Your task to perform on an android device: set default search engine in the chrome app Image 0: 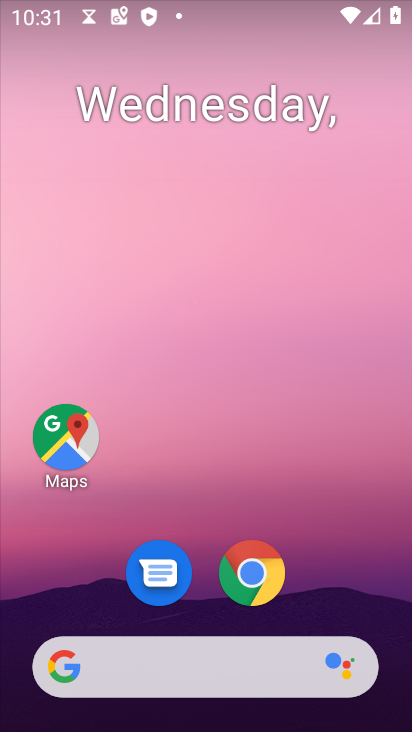
Step 0: click (248, 583)
Your task to perform on an android device: set default search engine in the chrome app Image 1: 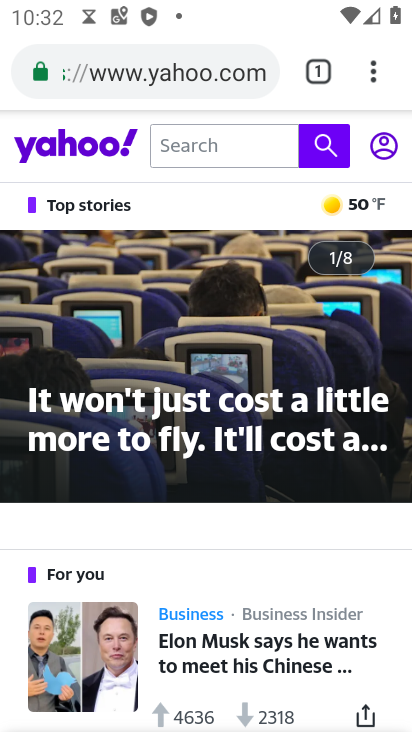
Step 1: click (369, 65)
Your task to perform on an android device: set default search engine in the chrome app Image 2: 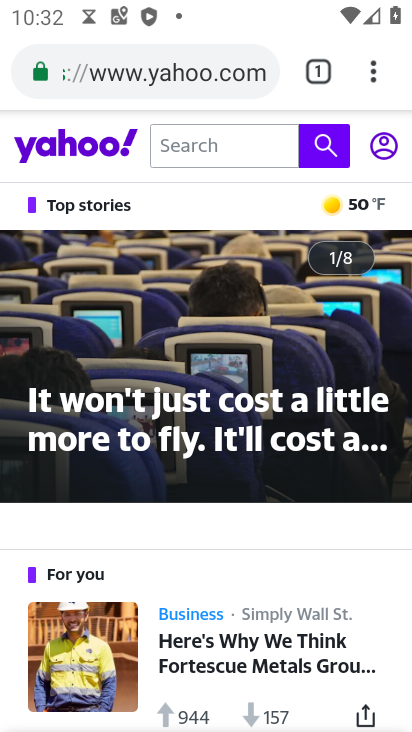
Step 2: click (372, 68)
Your task to perform on an android device: set default search engine in the chrome app Image 3: 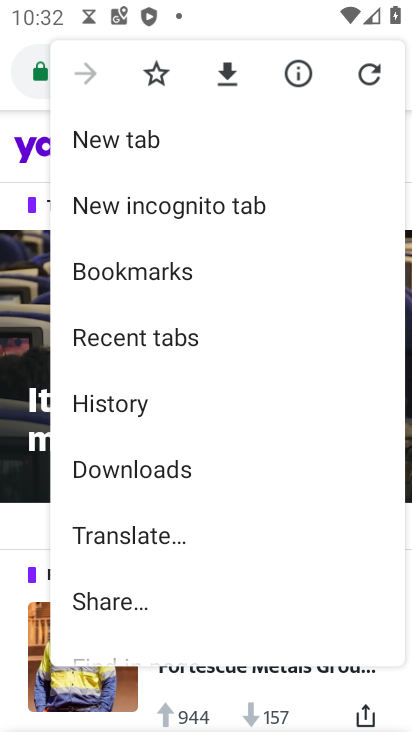
Step 3: drag from (136, 619) to (190, 205)
Your task to perform on an android device: set default search engine in the chrome app Image 4: 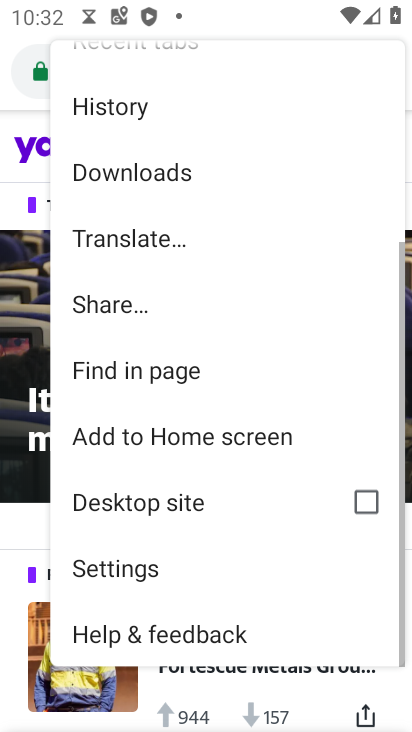
Step 4: click (110, 567)
Your task to perform on an android device: set default search engine in the chrome app Image 5: 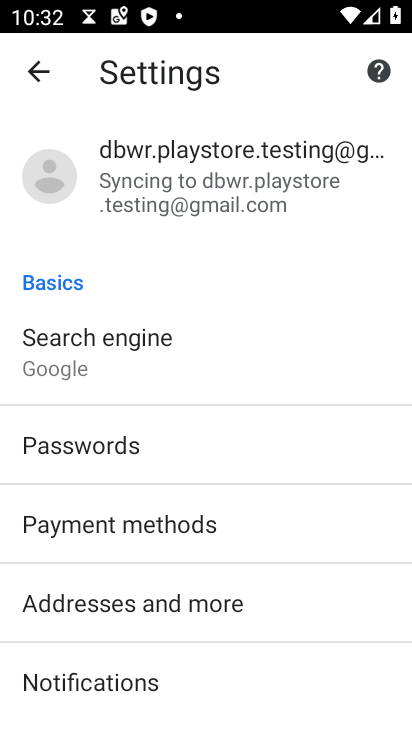
Step 5: click (94, 345)
Your task to perform on an android device: set default search engine in the chrome app Image 6: 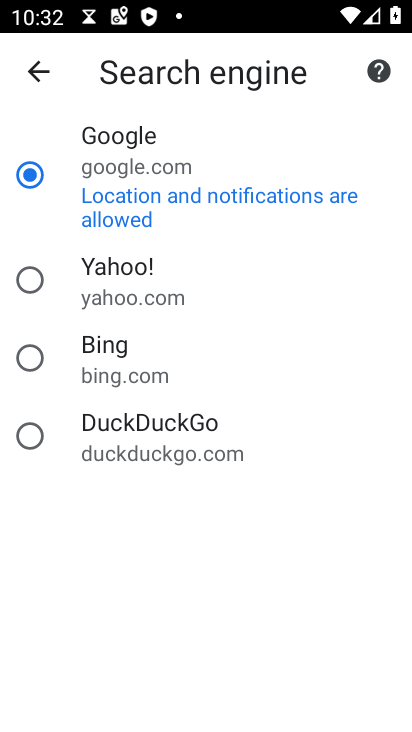
Step 6: task complete